Your task to perform on an android device: toggle data saver in the chrome app Image 0: 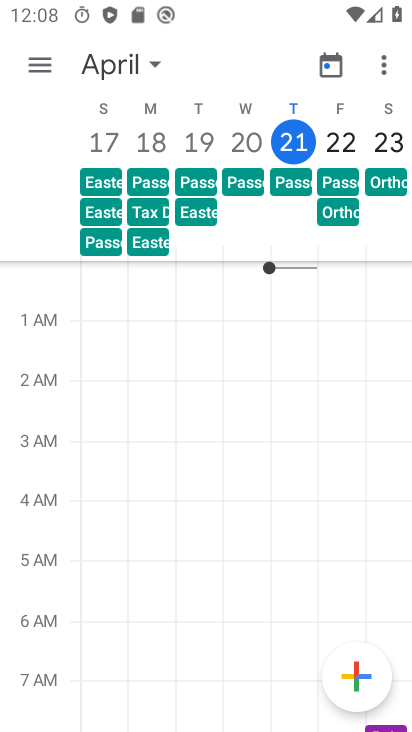
Step 0: press home button
Your task to perform on an android device: toggle data saver in the chrome app Image 1: 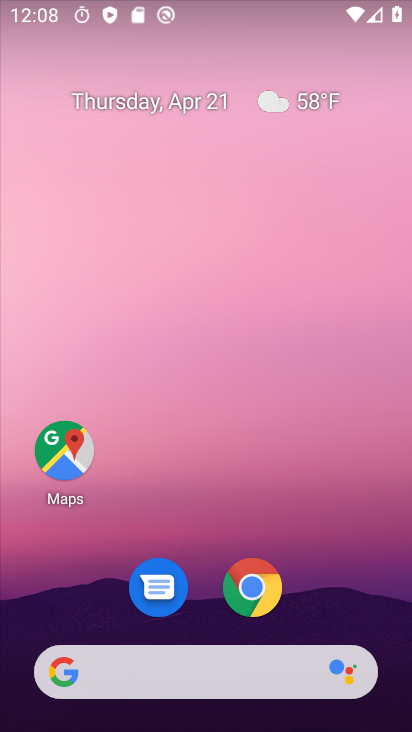
Step 1: click (260, 584)
Your task to perform on an android device: toggle data saver in the chrome app Image 2: 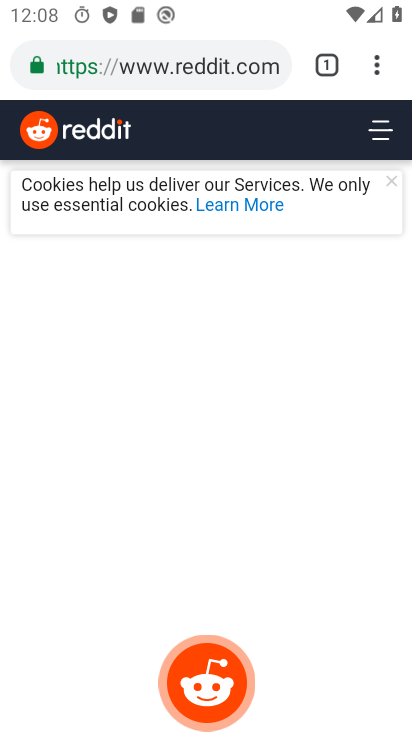
Step 2: click (376, 76)
Your task to perform on an android device: toggle data saver in the chrome app Image 3: 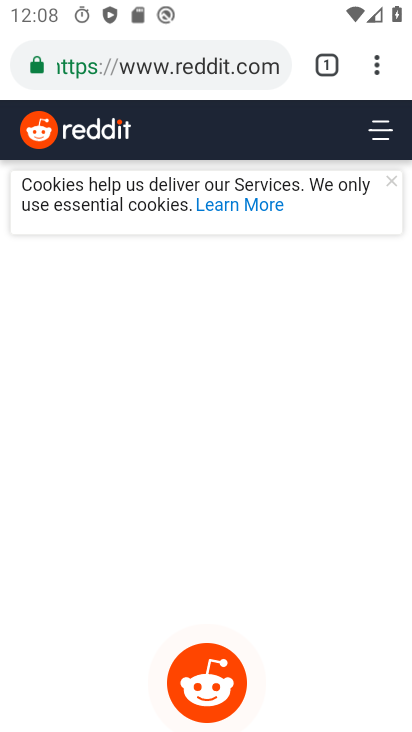
Step 3: click (367, 69)
Your task to perform on an android device: toggle data saver in the chrome app Image 4: 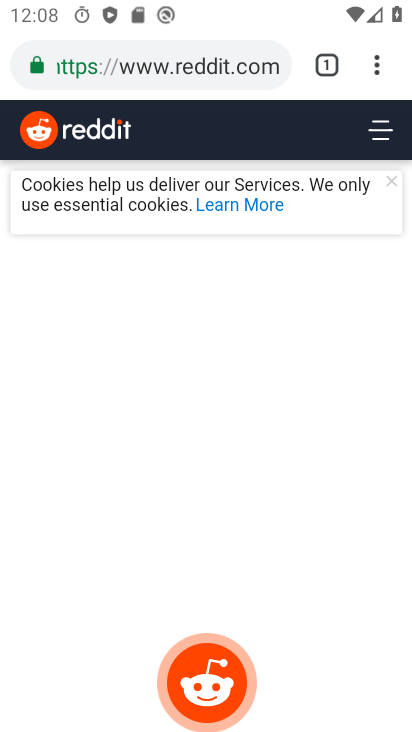
Step 4: click (370, 72)
Your task to perform on an android device: toggle data saver in the chrome app Image 5: 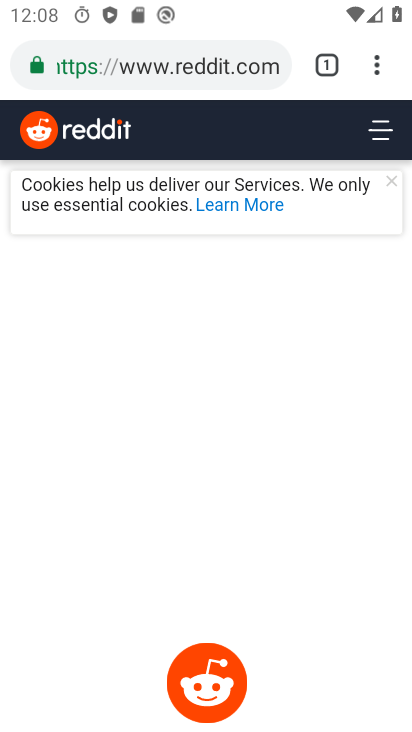
Step 5: click (380, 78)
Your task to perform on an android device: toggle data saver in the chrome app Image 6: 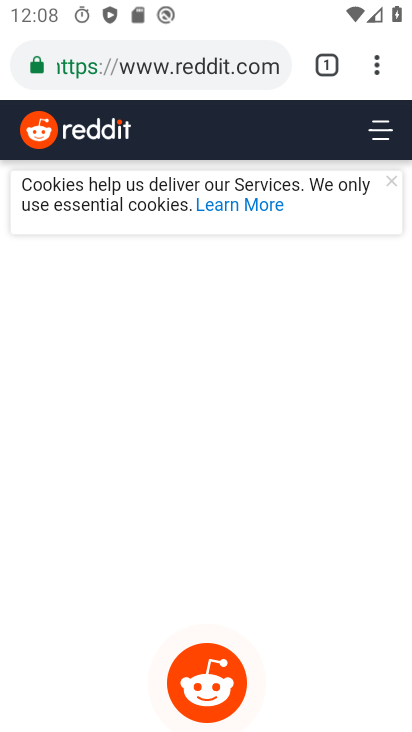
Step 6: click (385, 86)
Your task to perform on an android device: toggle data saver in the chrome app Image 7: 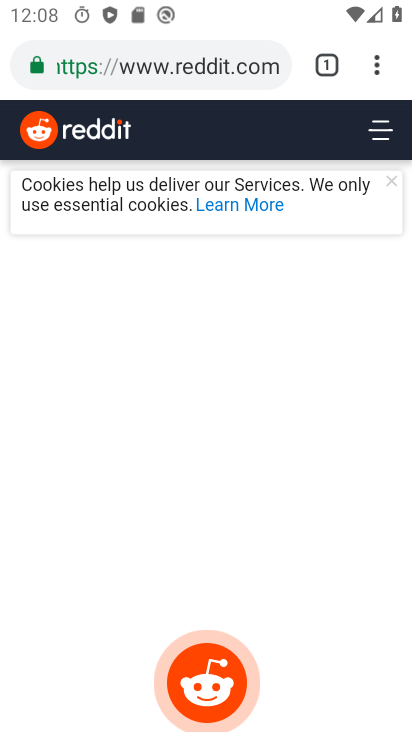
Step 7: click (371, 71)
Your task to perform on an android device: toggle data saver in the chrome app Image 8: 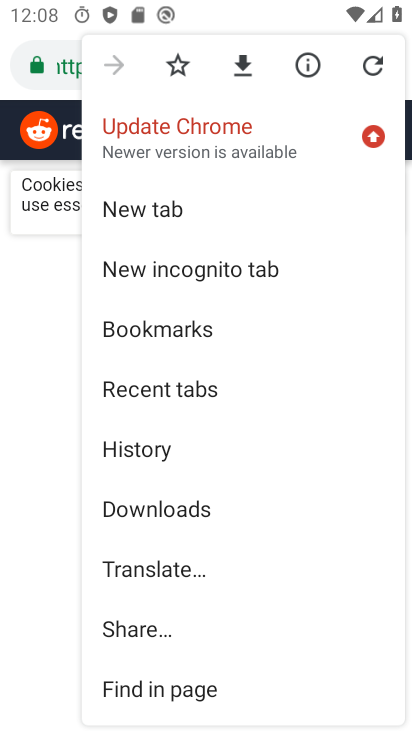
Step 8: drag from (157, 594) to (252, 179)
Your task to perform on an android device: toggle data saver in the chrome app Image 9: 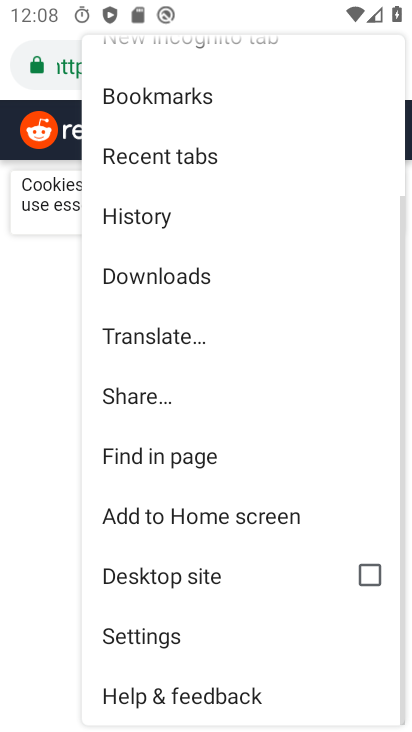
Step 9: click (142, 628)
Your task to perform on an android device: toggle data saver in the chrome app Image 10: 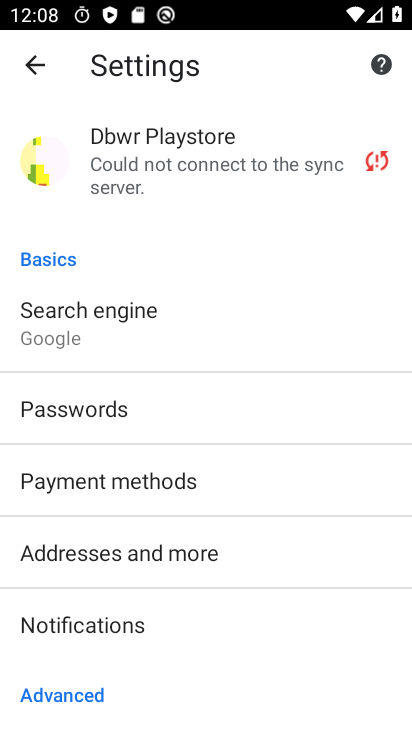
Step 10: drag from (84, 544) to (161, 288)
Your task to perform on an android device: toggle data saver in the chrome app Image 11: 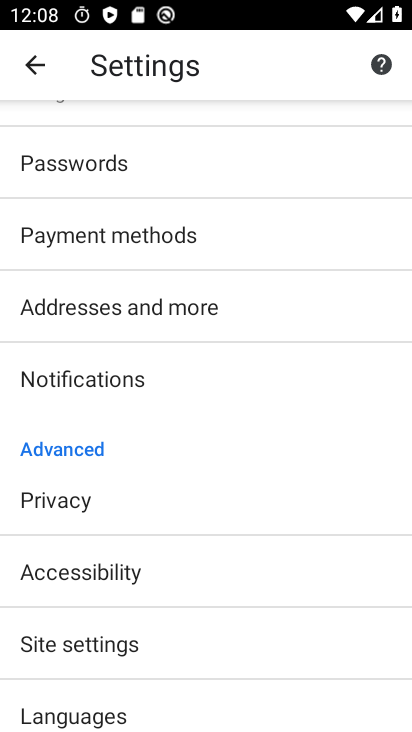
Step 11: drag from (69, 675) to (136, 429)
Your task to perform on an android device: toggle data saver in the chrome app Image 12: 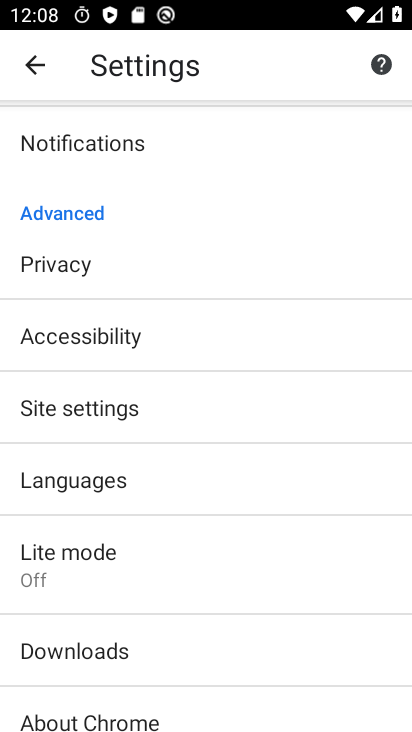
Step 12: click (78, 592)
Your task to perform on an android device: toggle data saver in the chrome app Image 13: 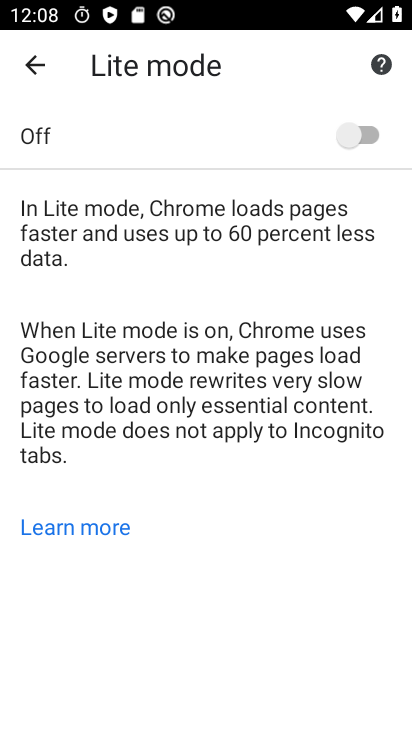
Step 13: click (369, 134)
Your task to perform on an android device: toggle data saver in the chrome app Image 14: 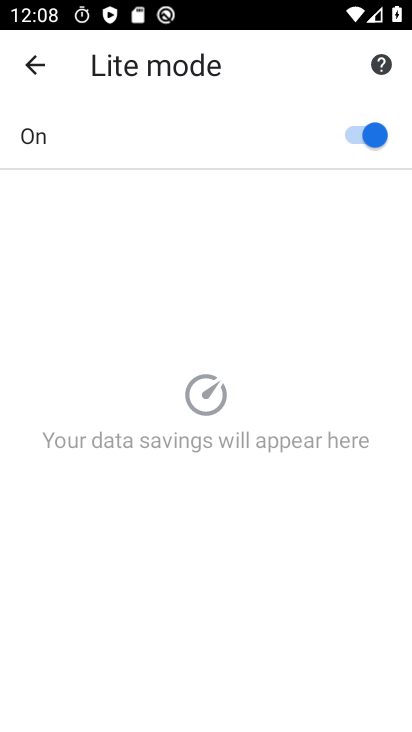
Step 14: task complete